Your task to perform on an android device: turn notification dots off Image 0: 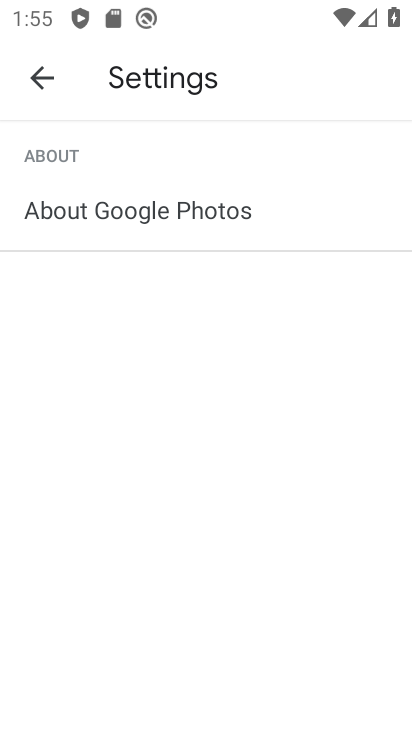
Step 0: press home button
Your task to perform on an android device: turn notification dots off Image 1: 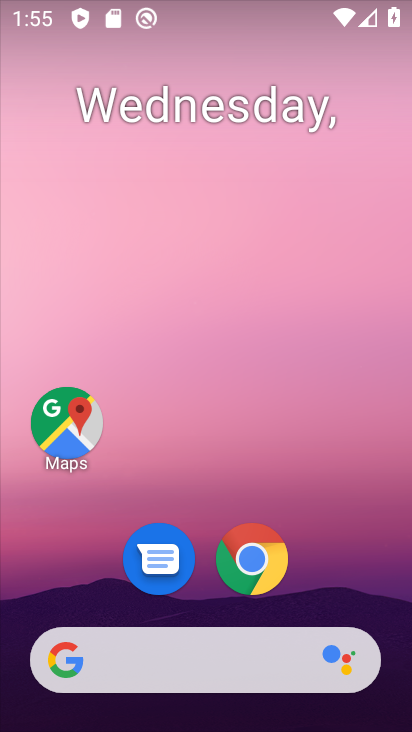
Step 1: drag from (389, 580) to (280, 25)
Your task to perform on an android device: turn notification dots off Image 2: 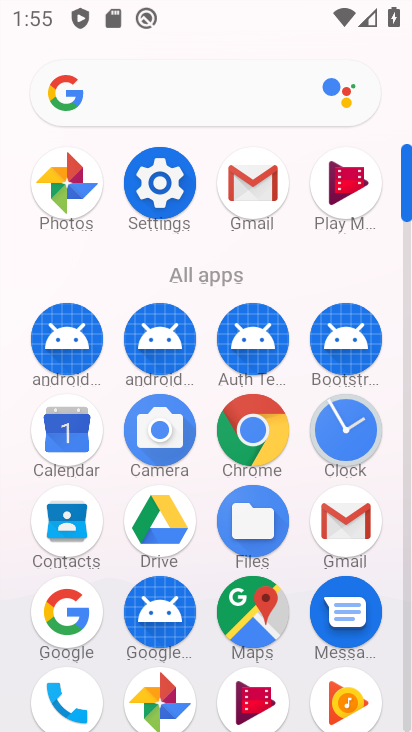
Step 2: click (160, 176)
Your task to perform on an android device: turn notification dots off Image 3: 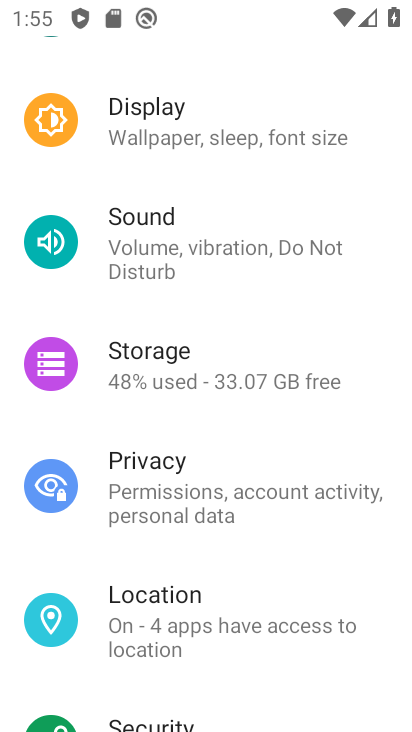
Step 3: drag from (220, 543) to (231, 50)
Your task to perform on an android device: turn notification dots off Image 4: 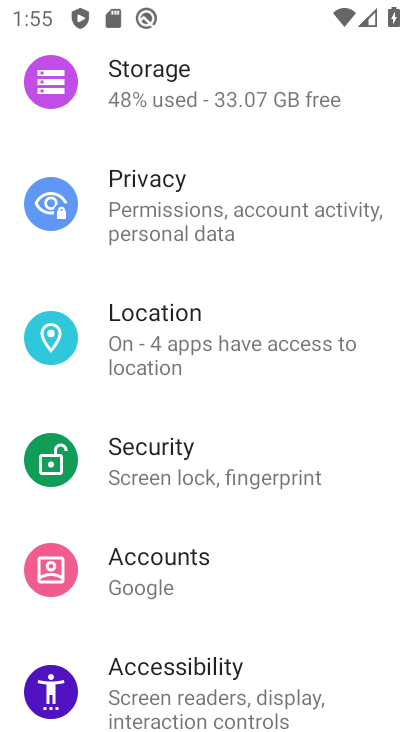
Step 4: drag from (207, 645) to (204, 312)
Your task to perform on an android device: turn notification dots off Image 5: 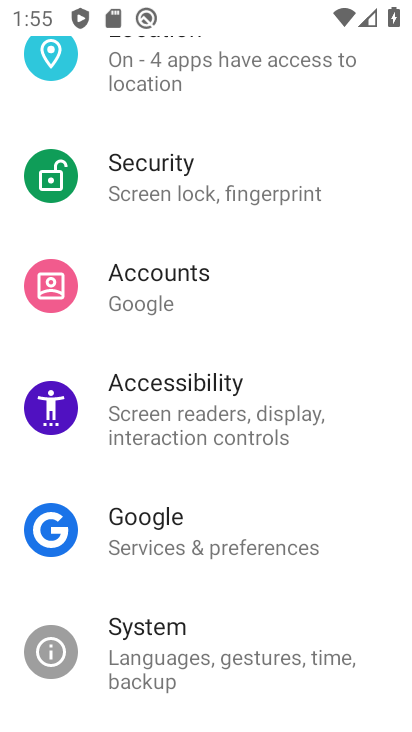
Step 5: drag from (223, 626) to (254, 238)
Your task to perform on an android device: turn notification dots off Image 6: 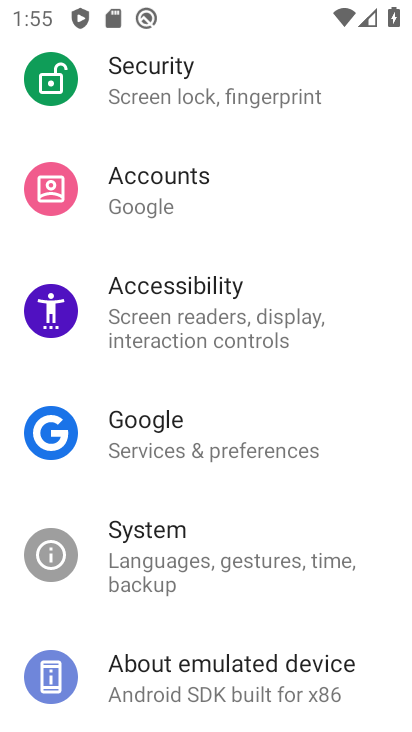
Step 6: drag from (270, 110) to (246, 602)
Your task to perform on an android device: turn notification dots off Image 7: 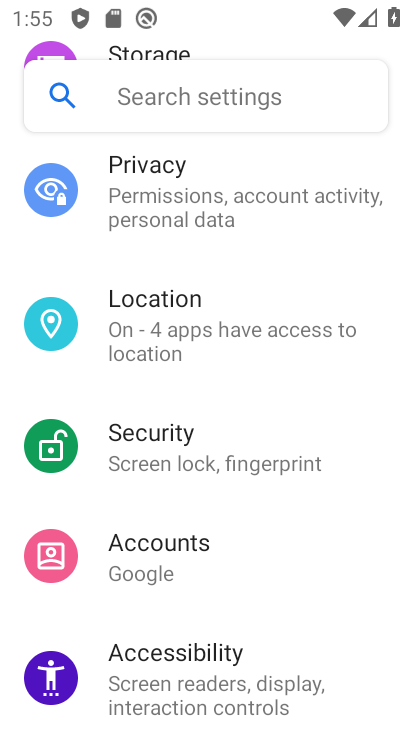
Step 7: drag from (232, 285) to (229, 611)
Your task to perform on an android device: turn notification dots off Image 8: 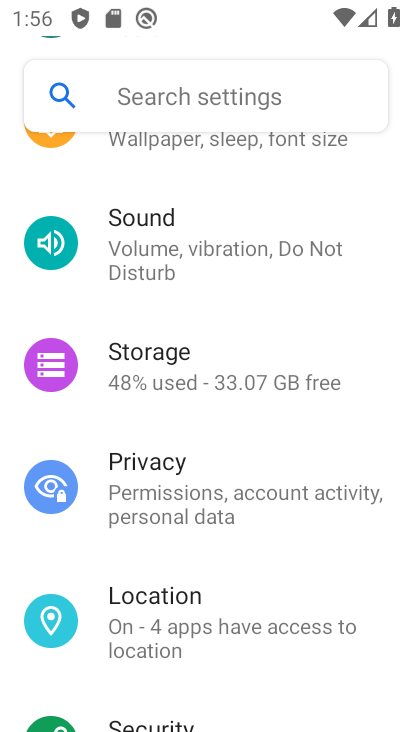
Step 8: drag from (210, 196) to (223, 505)
Your task to perform on an android device: turn notification dots off Image 9: 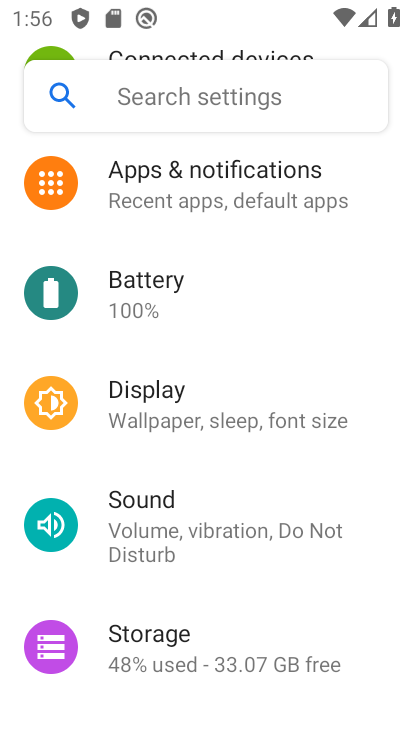
Step 9: click (194, 205)
Your task to perform on an android device: turn notification dots off Image 10: 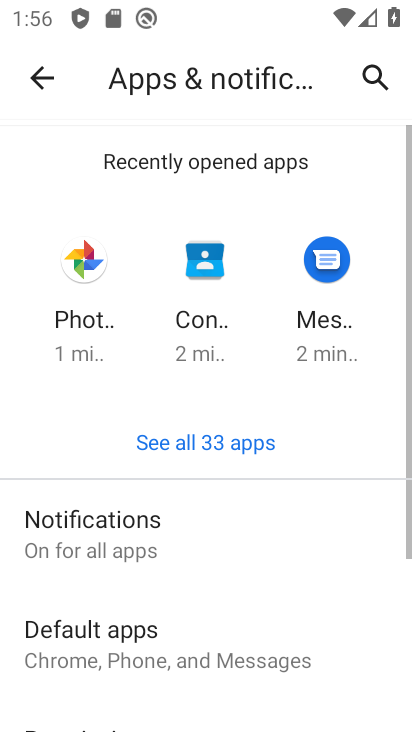
Step 10: drag from (261, 617) to (263, 84)
Your task to perform on an android device: turn notification dots off Image 11: 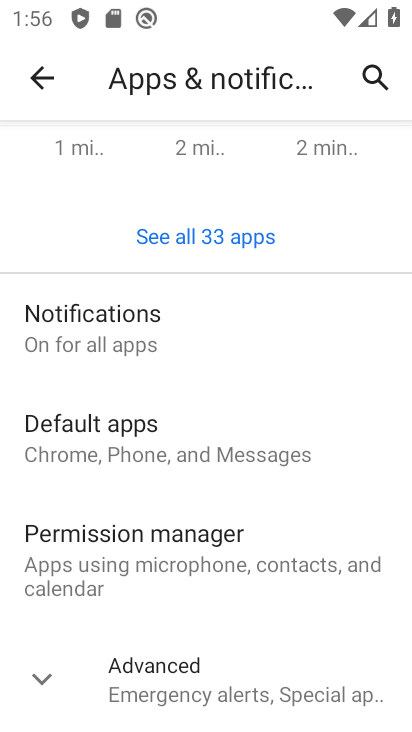
Step 11: click (200, 698)
Your task to perform on an android device: turn notification dots off Image 12: 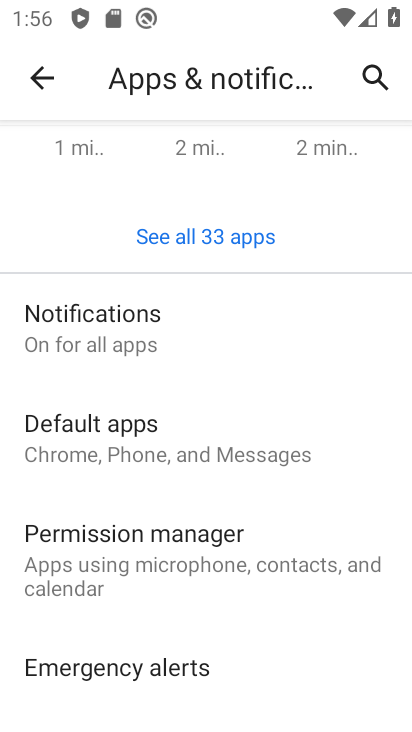
Step 12: drag from (211, 624) to (232, 396)
Your task to perform on an android device: turn notification dots off Image 13: 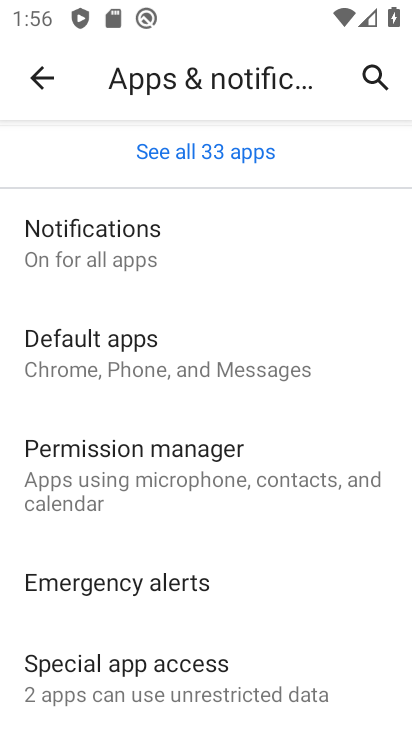
Step 13: drag from (214, 539) to (173, 270)
Your task to perform on an android device: turn notification dots off Image 14: 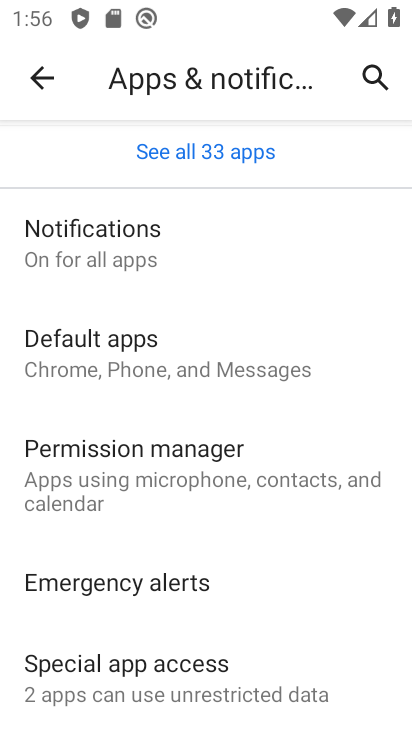
Step 14: click (132, 249)
Your task to perform on an android device: turn notification dots off Image 15: 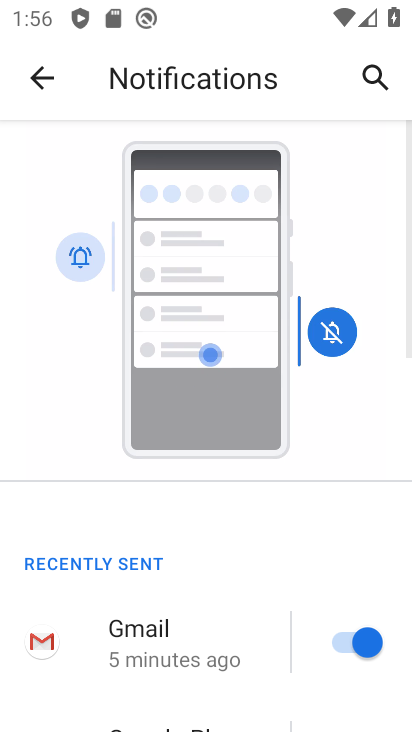
Step 15: drag from (177, 604) to (37, 275)
Your task to perform on an android device: turn notification dots off Image 16: 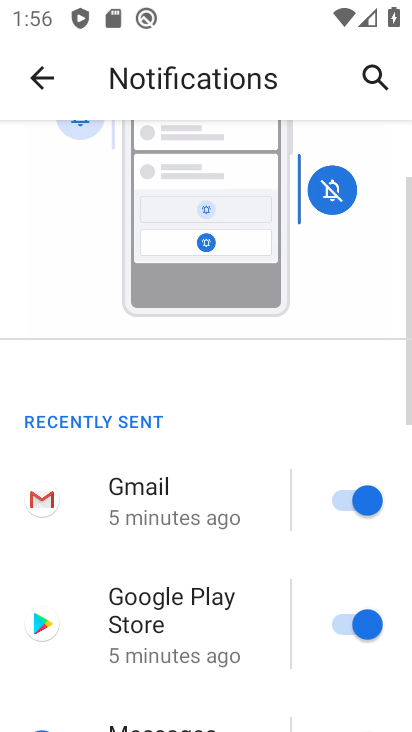
Step 16: drag from (258, 609) to (230, 161)
Your task to perform on an android device: turn notification dots off Image 17: 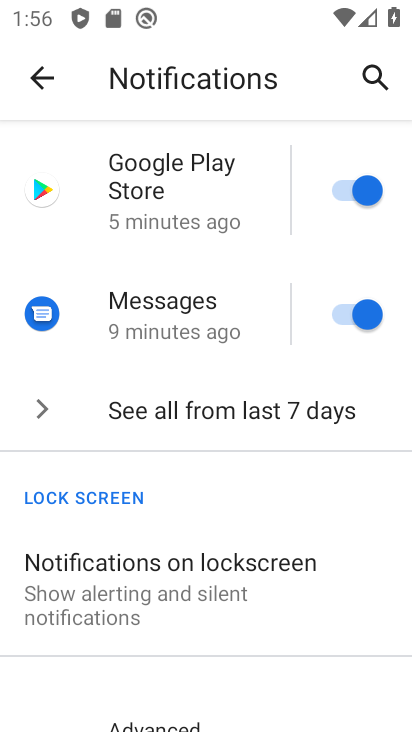
Step 17: drag from (254, 638) to (209, 208)
Your task to perform on an android device: turn notification dots off Image 18: 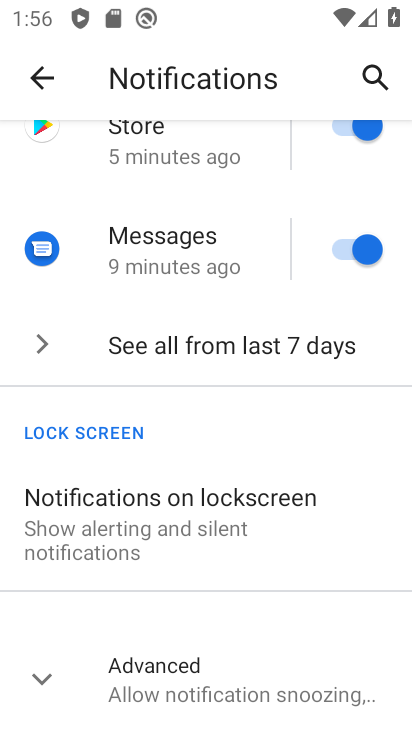
Step 18: click (191, 695)
Your task to perform on an android device: turn notification dots off Image 19: 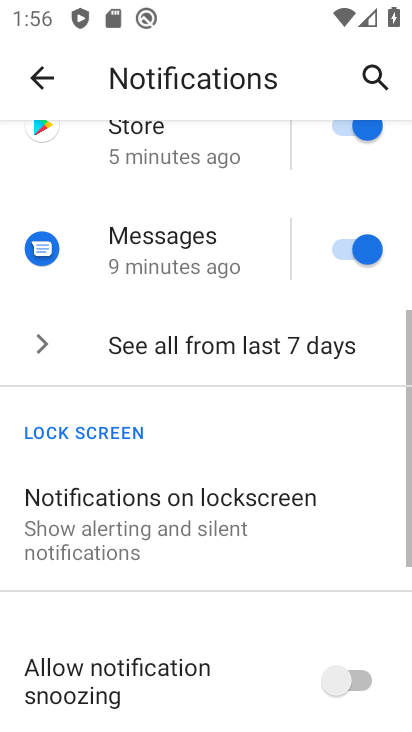
Step 19: drag from (212, 648) to (192, 20)
Your task to perform on an android device: turn notification dots off Image 20: 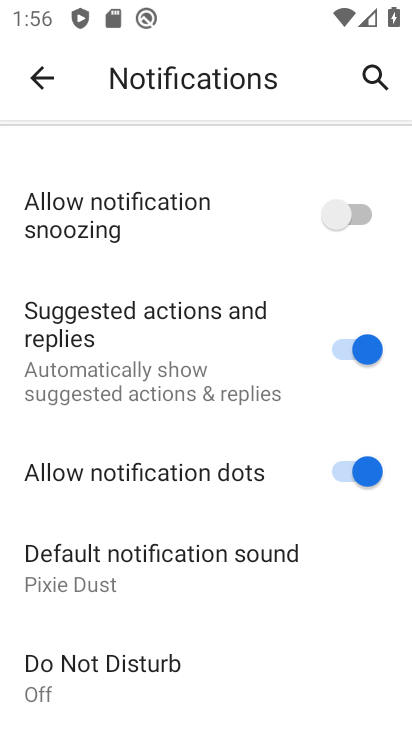
Step 20: click (258, 482)
Your task to perform on an android device: turn notification dots off Image 21: 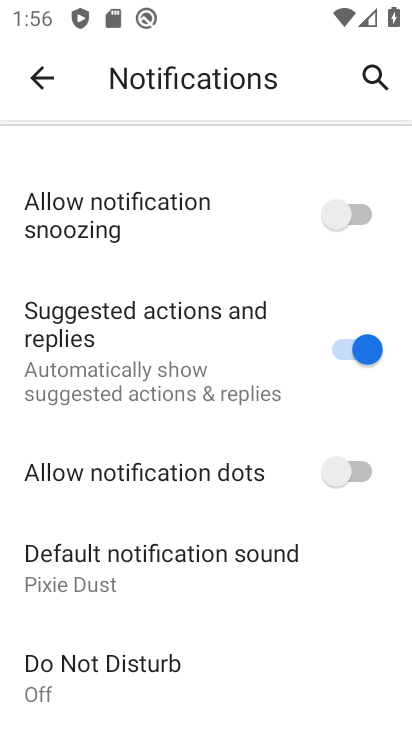
Step 21: task complete